Your task to perform on an android device: change text size in settings app Image 0: 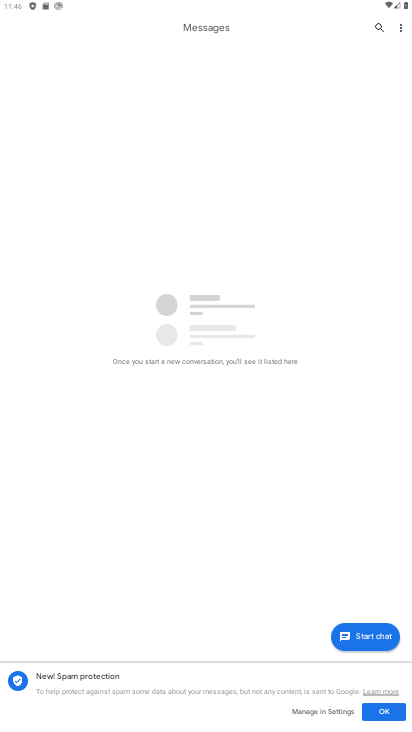
Step 0: press home button
Your task to perform on an android device: change text size in settings app Image 1: 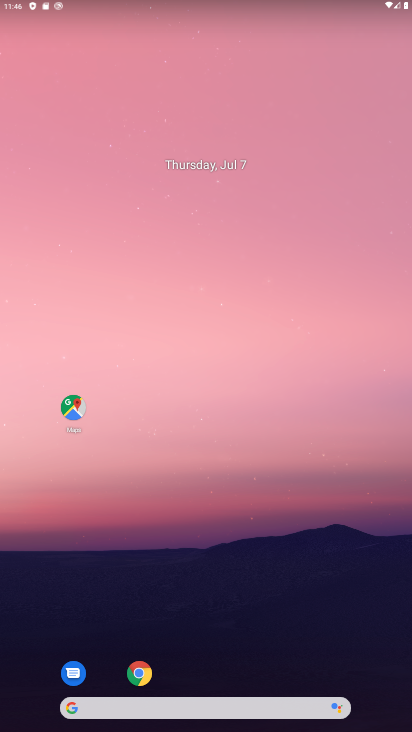
Step 1: drag from (220, 606) to (219, 82)
Your task to perform on an android device: change text size in settings app Image 2: 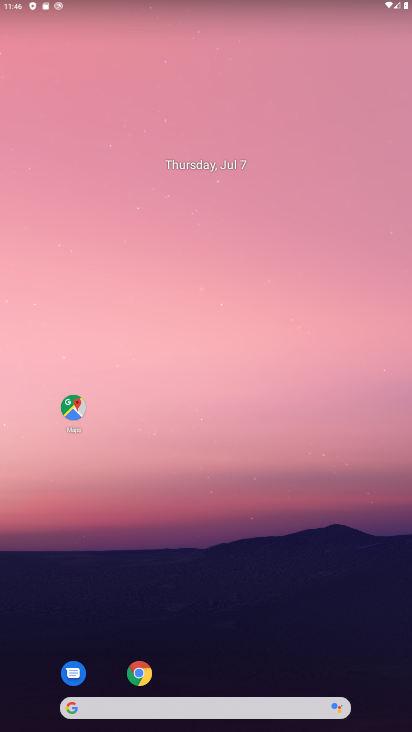
Step 2: drag from (245, 628) to (247, 126)
Your task to perform on an android device: change text size in settings app Image 3: 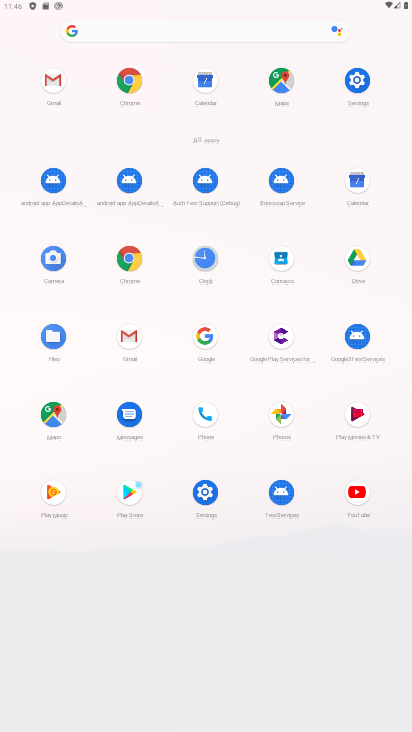
Step 3: click (358, 79)
Your task to perform on an android device: change text size in settings app Image 4: 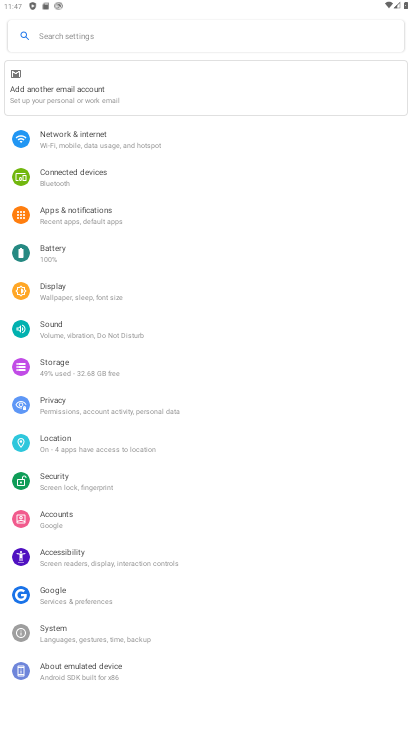
Step 4: click (75, 560)
Your task to perform on an android device: change text size in settings app Image 5: 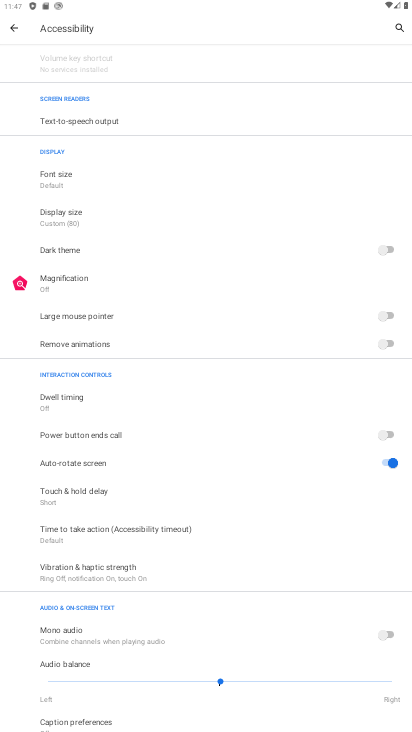
Step 5: click (68, 180)
Your task to perform on an android device: change text size in settings app Image 6: 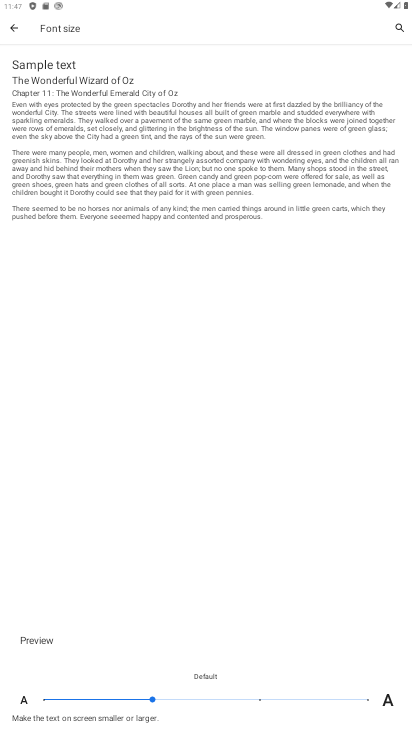
Step 6: click (257, 700)
Your task to perform on an android device: change text size in settings app Image 7: 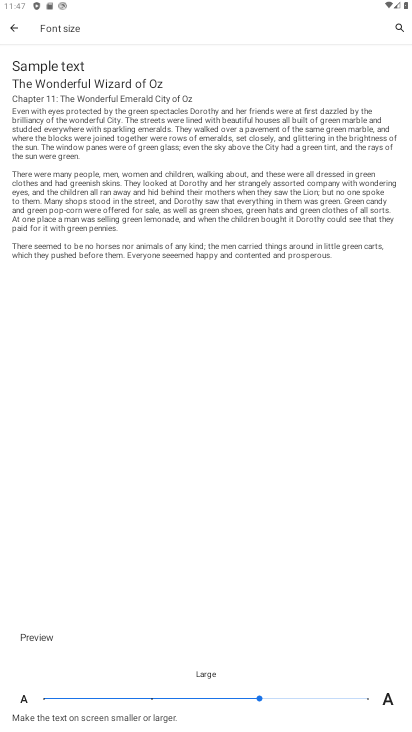
Step 7: task complete